Your task to perform on an android device: turn off improve location accuracy Image 0: 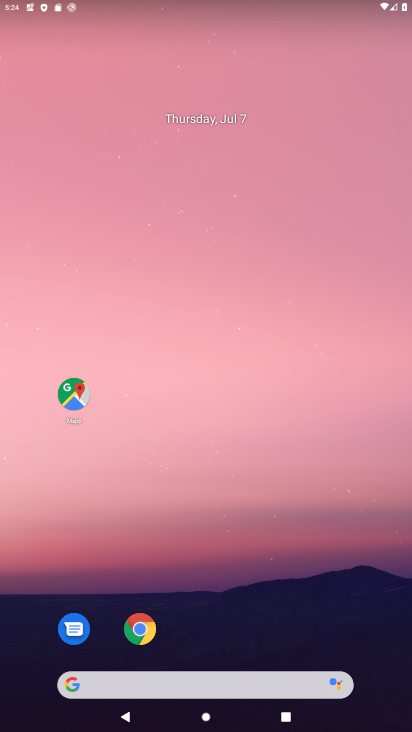
Step 0: drag from (237, 627) to (304, 64)
Your task to perform on an android device: turn off improve location accuracy Image 1: 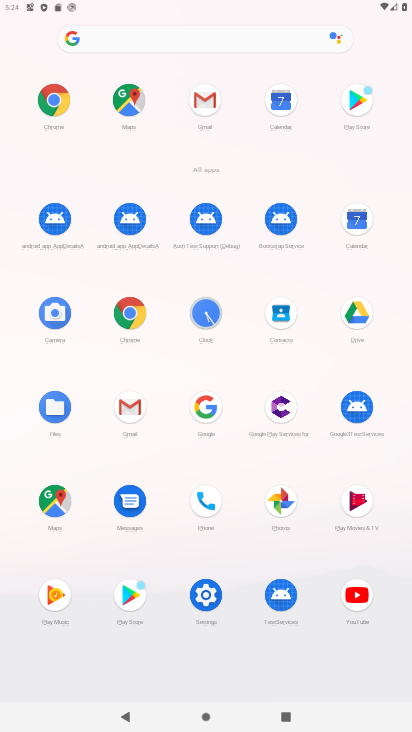
Step 1: click (201, 599)
Your task to perform on an android device: turn off improve location accuracy Image 2: 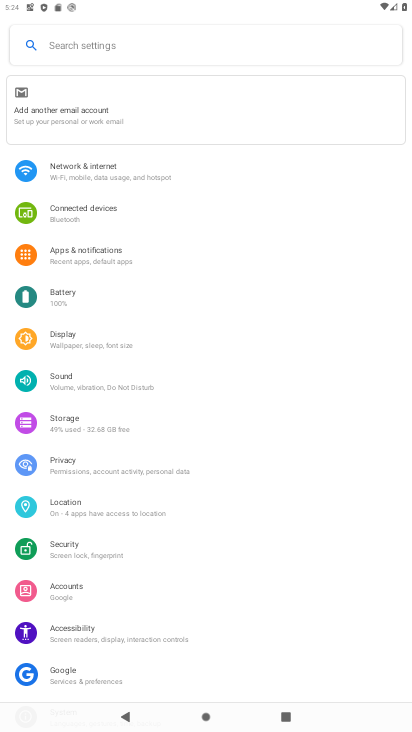
Step 2: drag from (192, 647) to (190, 221)
Your task to perform on an android device: turn off improve location accuracy Image 3: 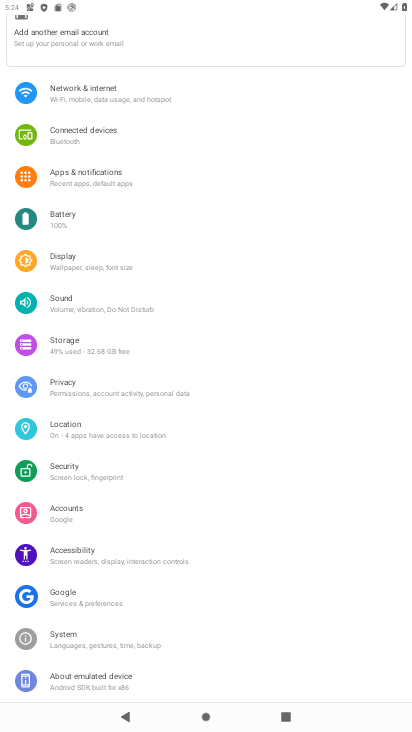
Step 3: click (74, 426)
Your task to perform on an android device: turn off improve location accuracy Image 4: 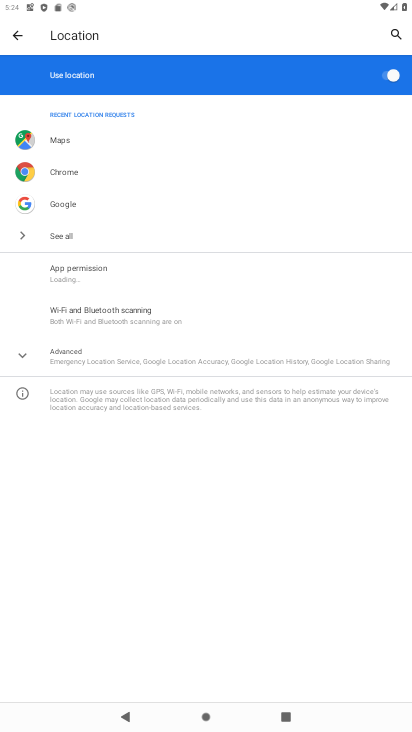
Step 4: click (91, 358)
Your task to perform on an android device: turn off improve location accuracy Image 5: 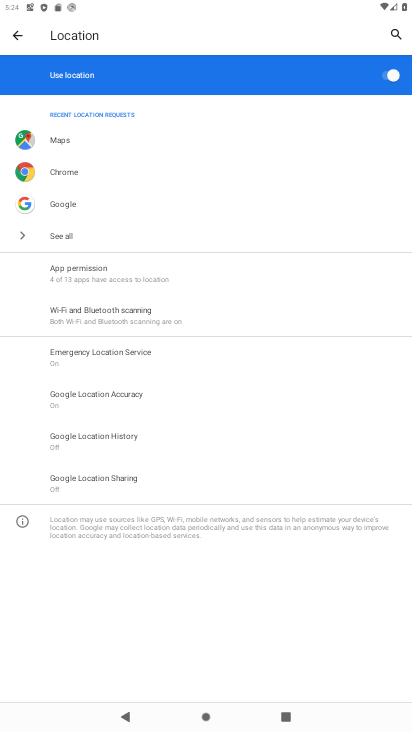
Step 5: click (76, 396)
Your task to perform on an android device: turn off improve location accuracy Image 6: 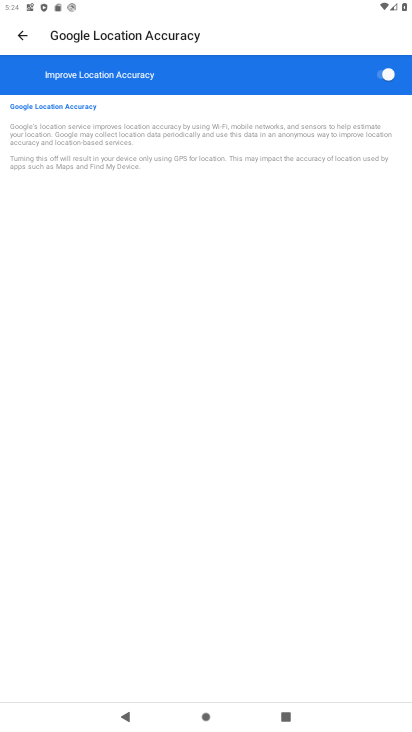
Step 6: click (374, 75)
Your task to perform on an android device: turn off improve location accuracy Image 7: 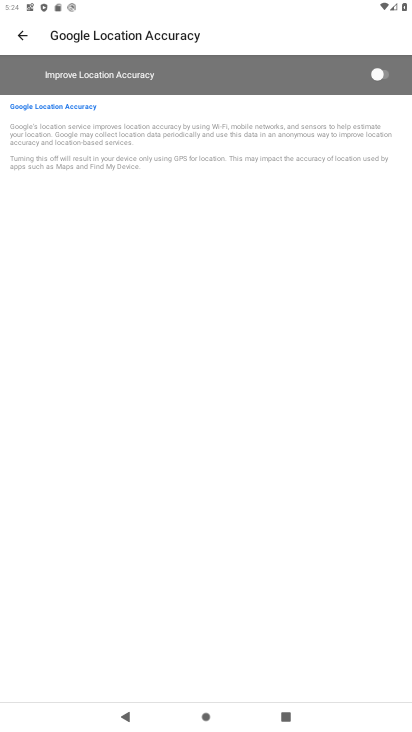
Step 7: task complete